Your task to perform on an android device: Go to sound settings Image 0: 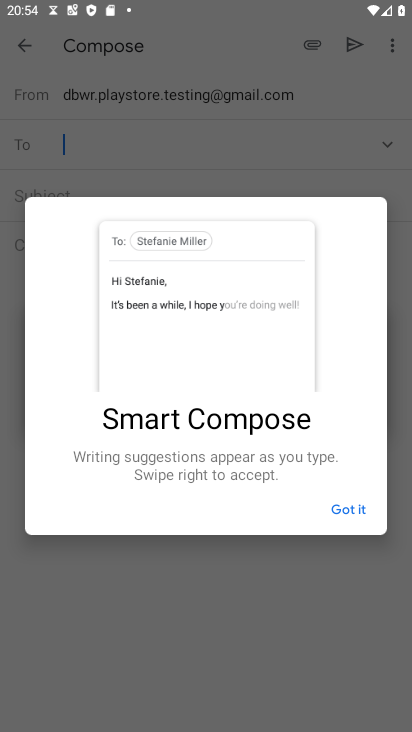
Step 0: press home button
Your task to perform on an android device: Go to sound settings Image 1: 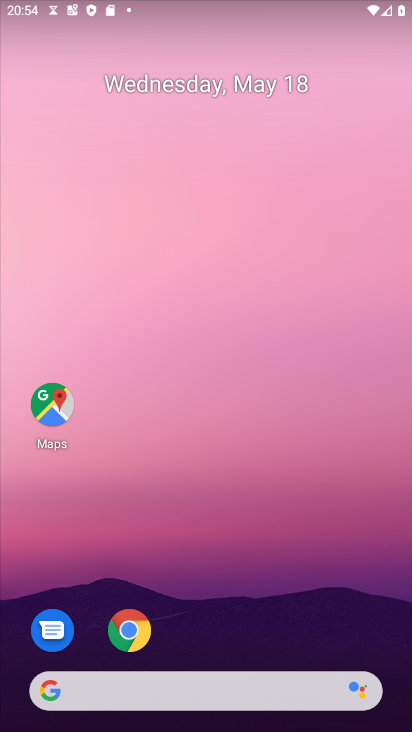
Step 1: drag from (145, 692) to (293, 126)
Your task to perform on an android device: Go to sound settings Image 2: 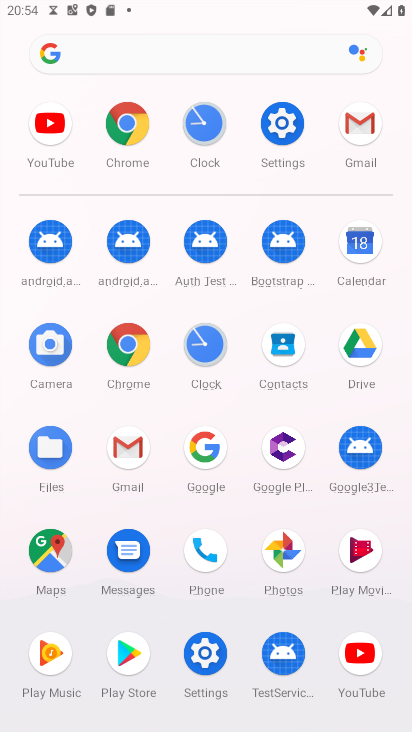
Step 2: click (280, 130)
Your task to perform on an android device: Go to sound settings Image 3: 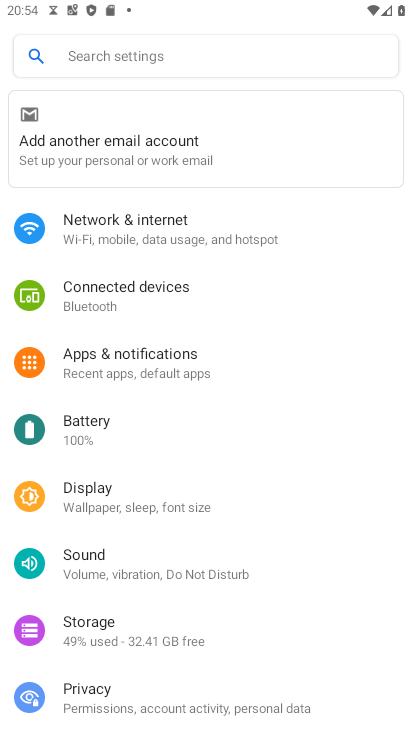
Step 3: click (123, 565)
Your task to perform on an android device: Go to sound settings Image 4: 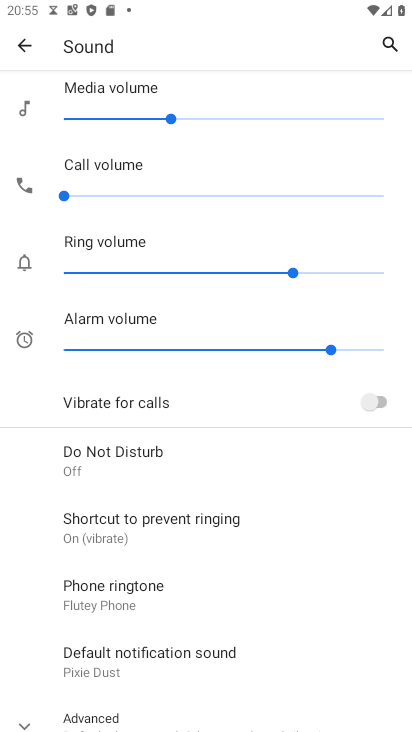
Step 4: task complete